Your task to perform on an android device: Open the phone app and click the voicemail tab. Image 0: 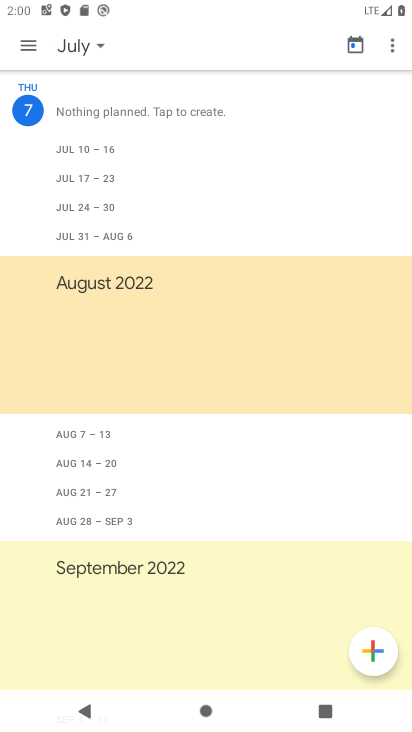
Step 0: press home button
Your task to perform on an android device: Open the phone app and click the voicemail tab. Image 1: 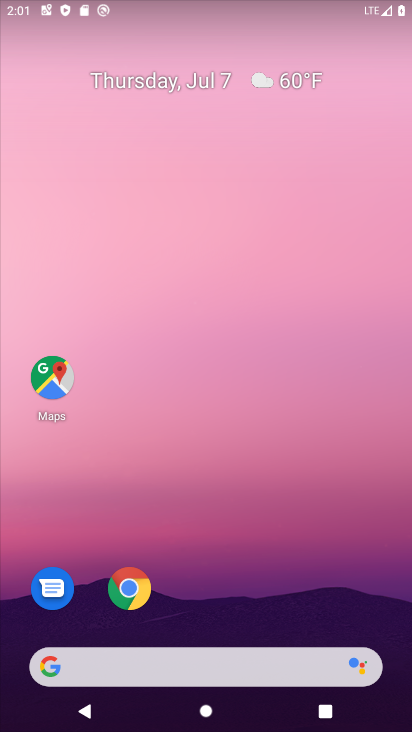
Step 1: drag from (288, 592) to (278, 305)
Your task to perform on an android device: Open the phone app and click the voicemail tab. Image 2: 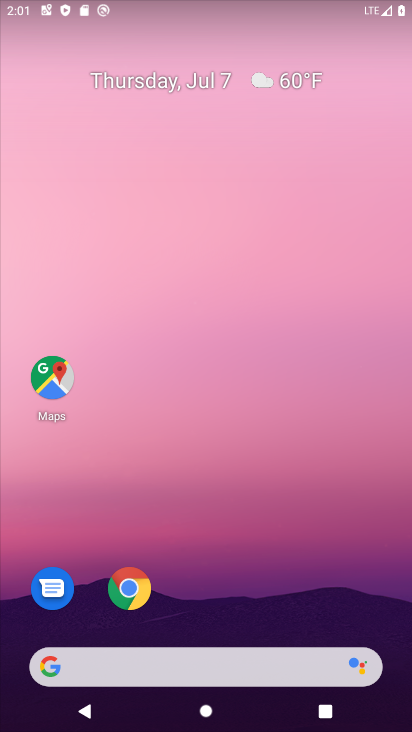
Step 2: drag from (196, 570) to (206, 237)
Your task to perform on an android device: Open the phone app and click the voicemail tab. Image 3: 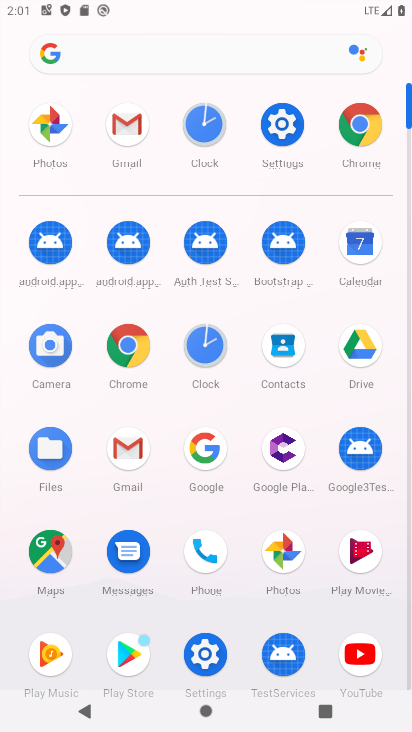
Step 3: click (216, 564)
Your task to perform on an android device: Open the phone app and click the voicemail tab. Image 4: 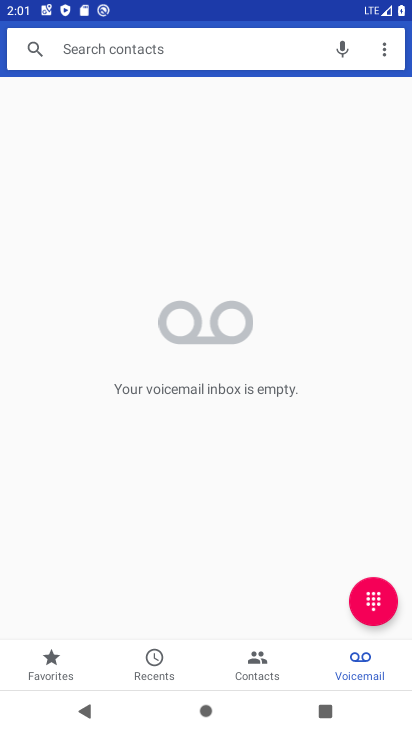
Step 4: click (344, 655)
Your task to perform on an android device: Open the phone app and click the voicemail tab. Image 5: 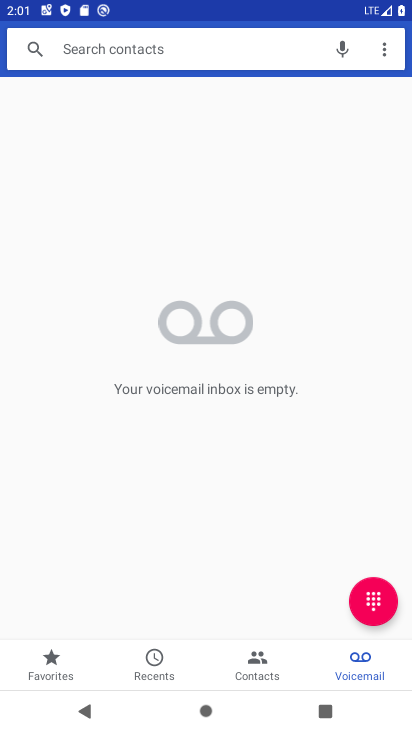
Step 5: click (344, 655)
Your task to perform on an android device: Open the phone app and click the voicemail tab. Image 6: 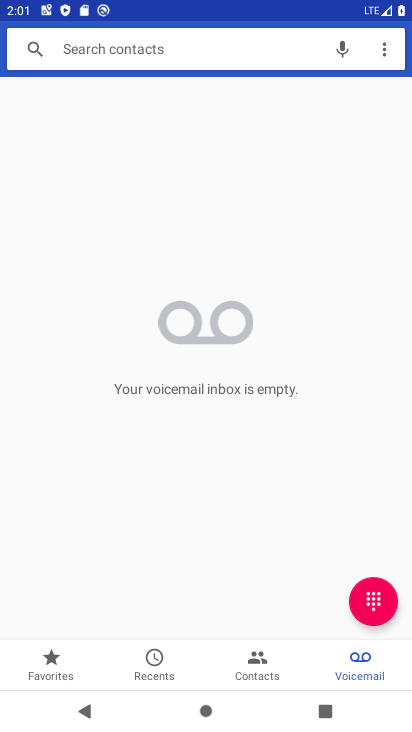
Step 6: click (344, 655)
Your task to perform on an android device: Open the phone app and click the voicemail tab. Image 7: 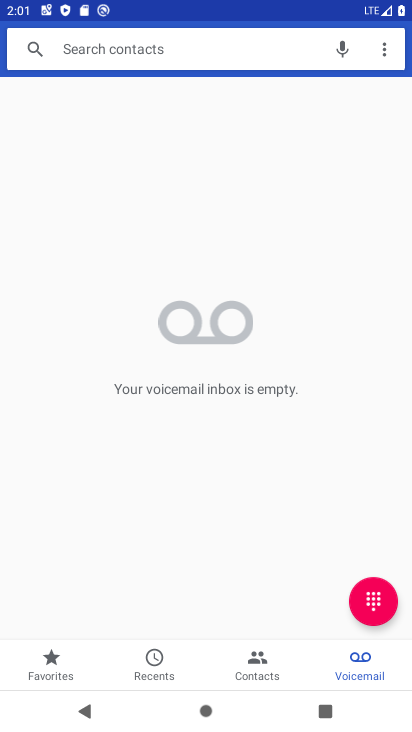
Step 7: task complete